Your task to perform on an android device: Open settings on Google Maps Image 0: 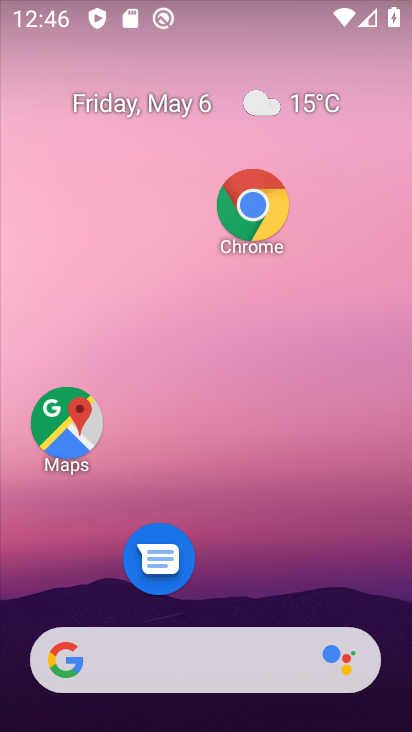
Step 0: drag from (225, 596) to (261, 1)
Your task to perform on an android device: Open settings on Google Maps Image 1: 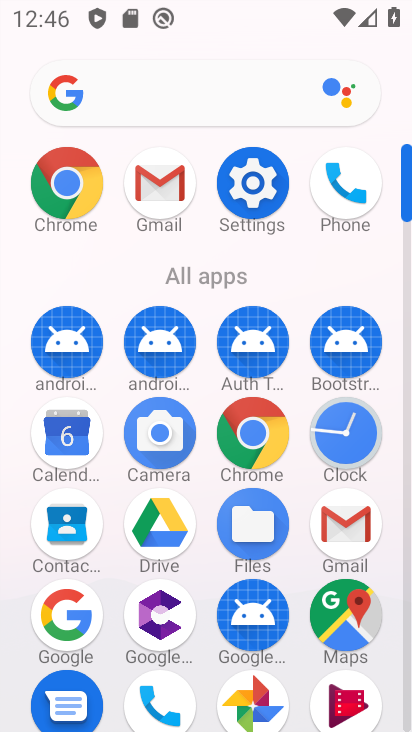
Step 1: click (343, 601)
Your task to perform on an android device: Open settings on Google Maps Image 2: 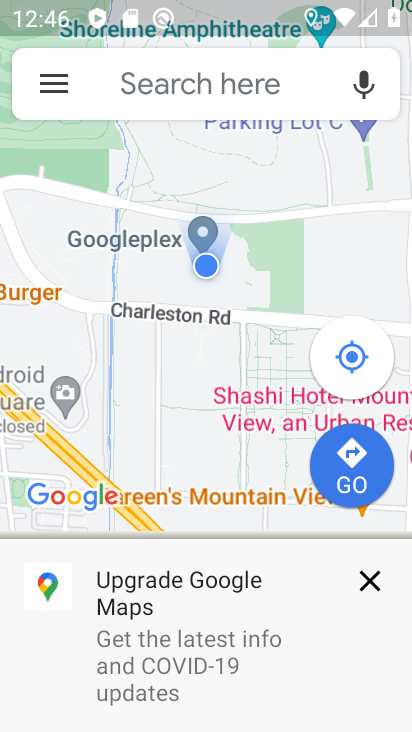
Step 2: click (56, 80)
Your task to perform on an android device: Open settings on Google Maps Image 3: 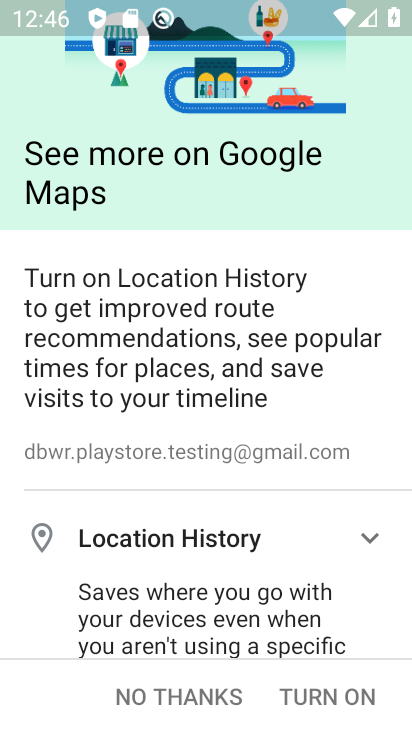
Step 3: click (184, 706)
Your task to perform on an android device: Open settings on Google Maps Image 4: 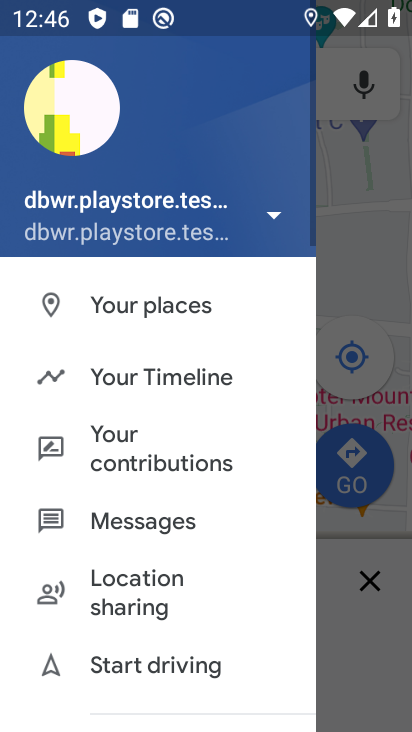
Step 4: drag from (177, 652) to (60, 122)
Your task to perform on an android device: Open settings on Google Maps Image 5: 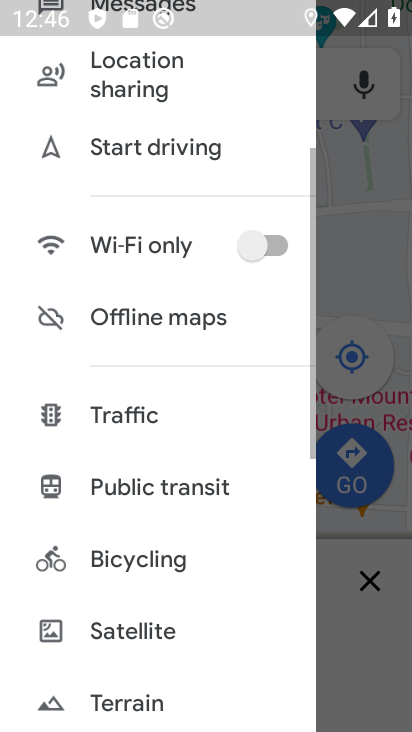
Step 5: drag from (191, 657) to (143, 182)
Your task to perform on an android device: Open settings on Google Maps Image 6: 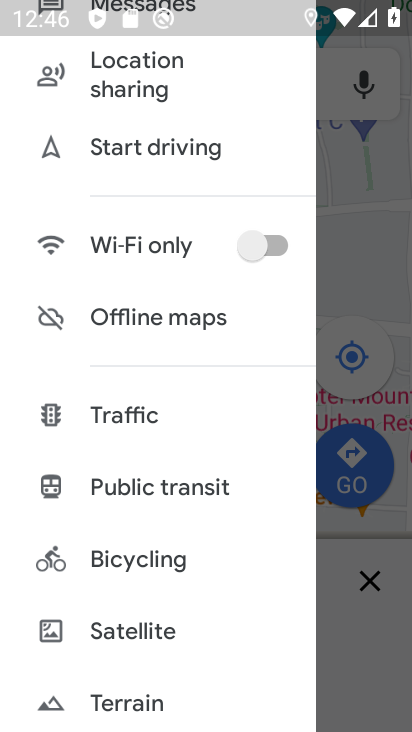
Step 6: drag from (183, 550) to (138, 108)
Your task to perform on an android device: Open settings on Google Maps Image 7: 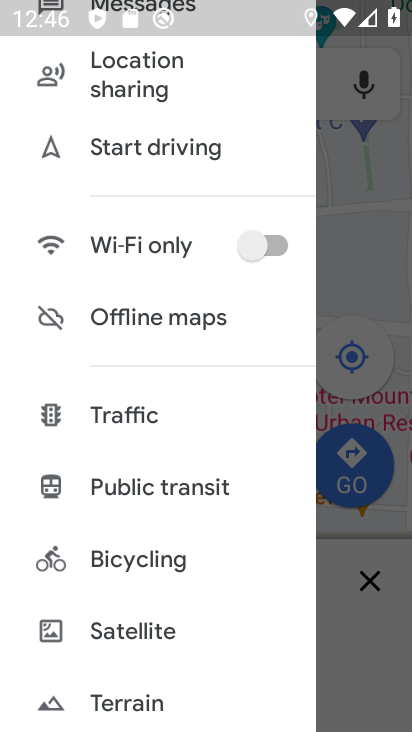
Step 7: drag from (187, 524) to (144, 104)
Your task to perform on an android device: Open settings on Google Maps Image 8: 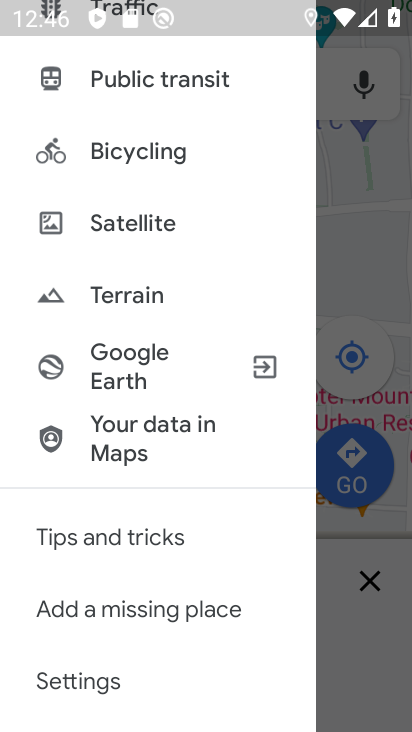
Step 8: click (59, 701)
Your task to perform on an android device: Open settings on Google Maps Image 9: 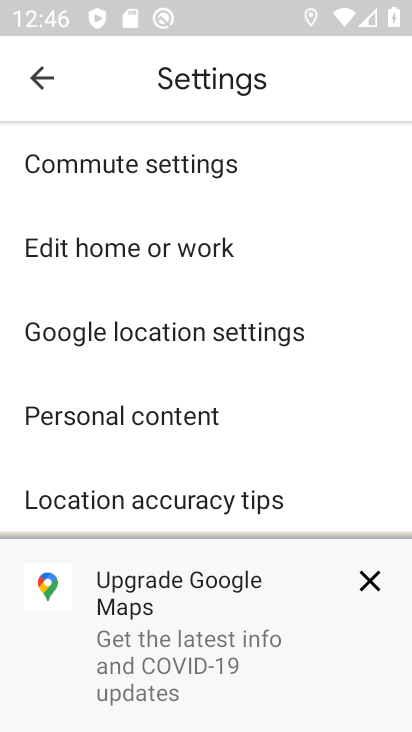
Step 9: click (372, 569)
Your task to perform on an android device: Open settings on Google Maps Image 10: 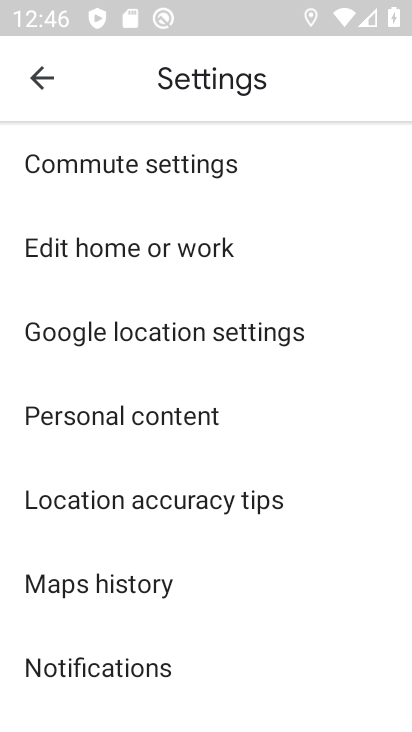
Step 10: task complete